Your task to perform on an android device: Open the map Image 0: 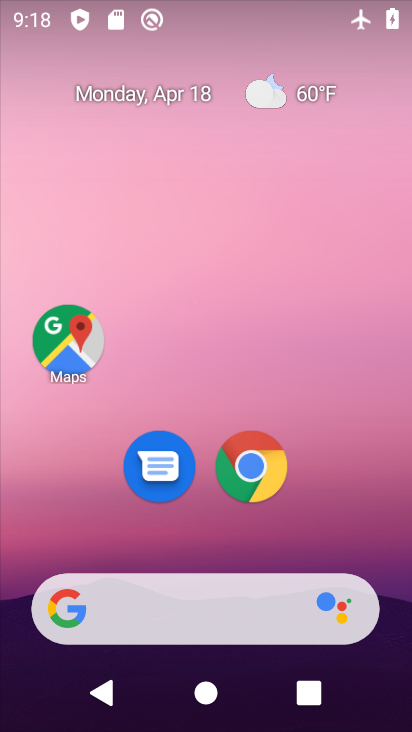
Step 0: click (60, 345)
Your task to perform on an android device: Open the map Image 1: 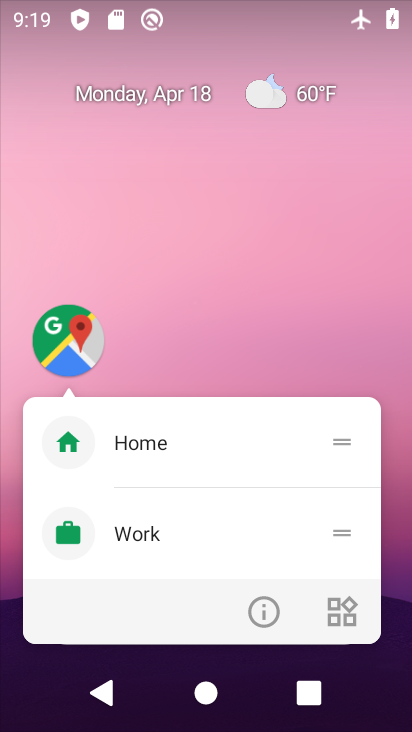
Step 1: click (70, 352)
Your task to perform on an android device: Open the map Image 2: 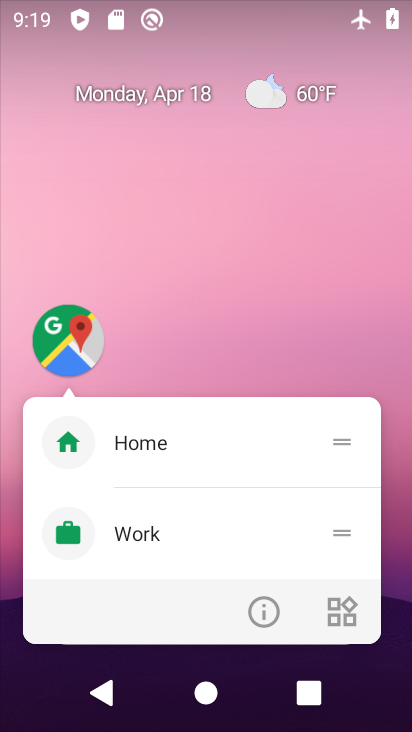
Step 2: click (70, 352)
Your task to perform on an android device: Open the map Image 3: 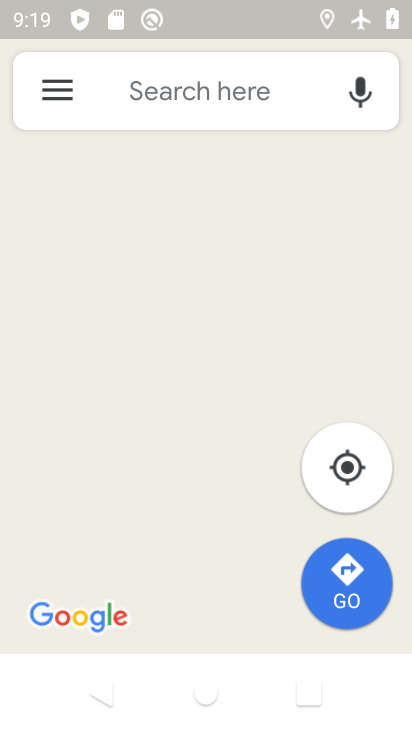
Step 3: task complete